Your task to perform on an android device: choose inbox layout in the gmail app Image 0: 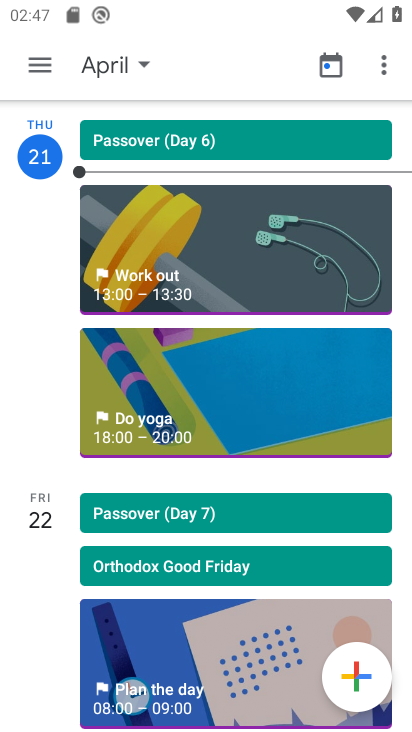
Step 0: press home button
Your task to perform on an android device: choose inbox layout in the gmail app Image 1: 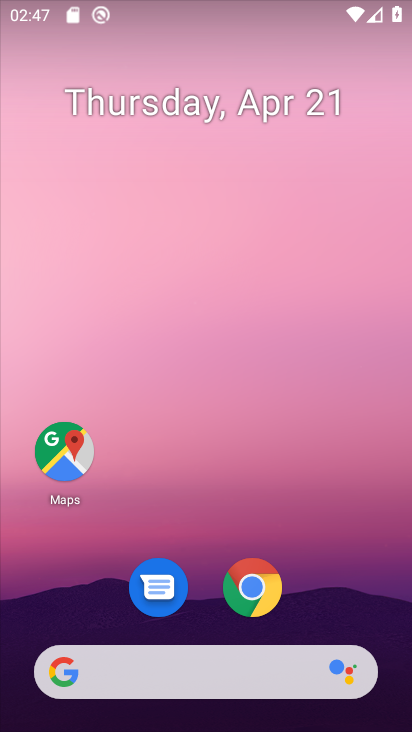
Step 1: drag from (340, 568) to (344, 100)
Your task to perform on an android device: choose inbox layout in the gmail app Image 2: 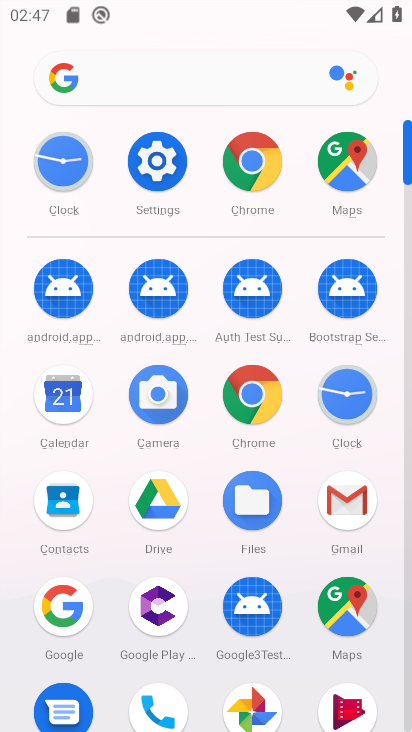
Step 2: click (357, 510)
Your task to perform on an android device: choose inbox layout in the gmail app Image 3: 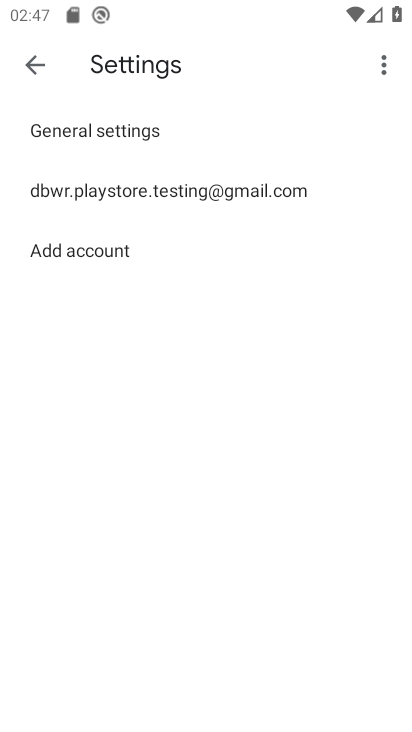
Step 3: click (306, 188)
Your task to perform on an android device: choose inbox layout in the gmail app Image 4: 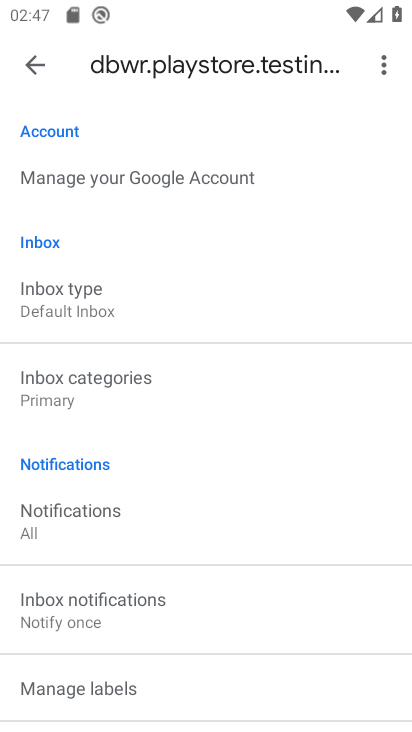
Step 4: drag from (293, 604) to (309, 456)
Your task to perform on an android device: choose inbox layout in the gmail app Image 5: 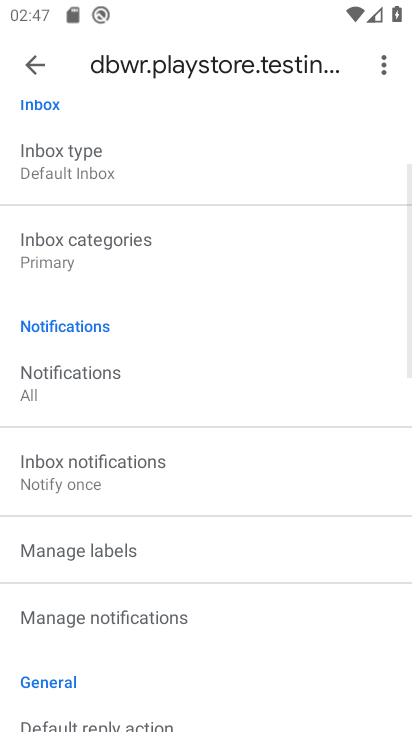
Step 5: drag from (307, 636) to (308, 421)
Your task to perform on an android device: choose inbox layout in the gmail app Image 6: 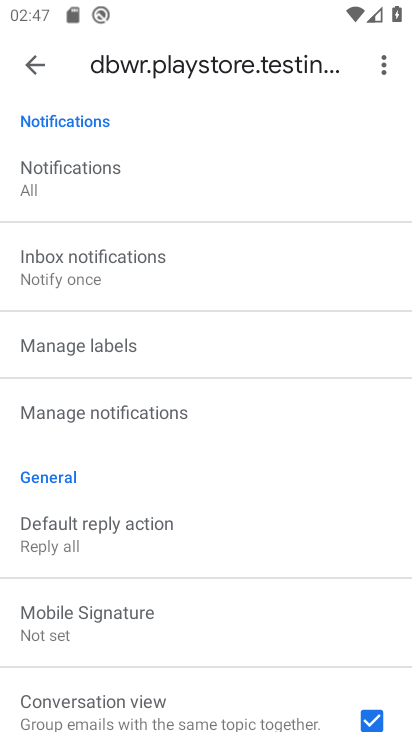
Step 6: drag from (321, 618) to (328, 447)
Your task to perform on an android device: choose inbox layout in the gmail app Image 7: 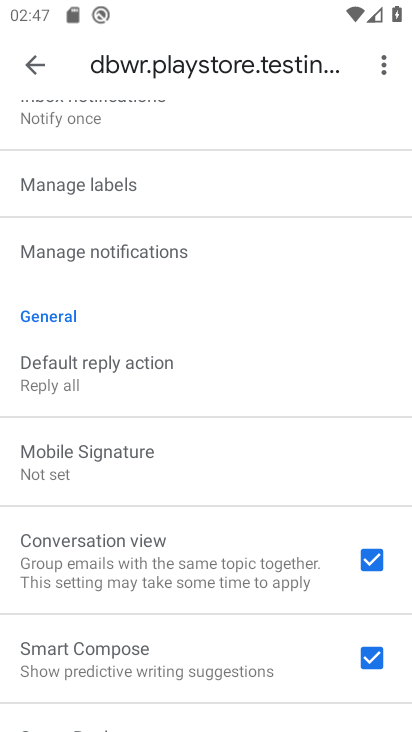
Step 7: drag from (297, 659) to (332, 420)
Your task to perform on an android device: choose inbox layout in the gmail app Image 8: 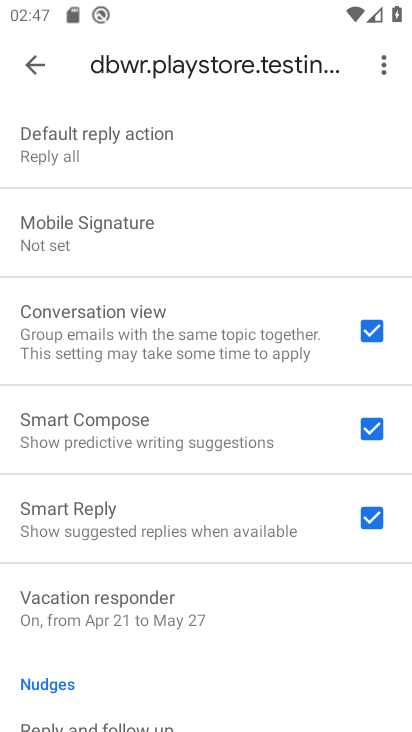
Step 8: drag from (329, 634) to (327, 436)
Your task to perform on an android device: choose inbox layout in the gmail app Image 9: 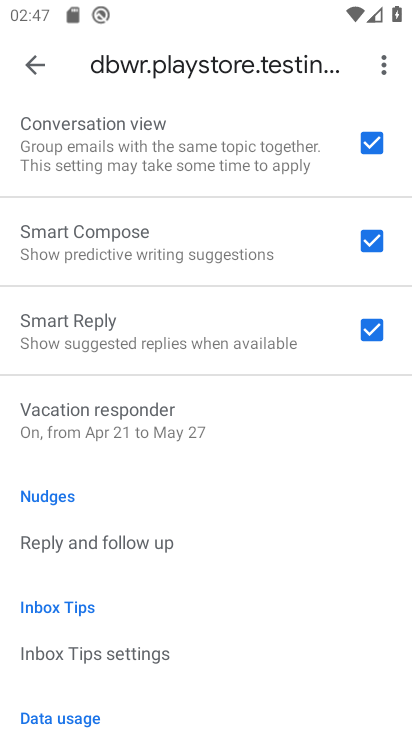
Step 9: drag from (306, 603) to (323, 214)
Your task to perform on an android device: choose inbox layout in the gmail app Image 10: 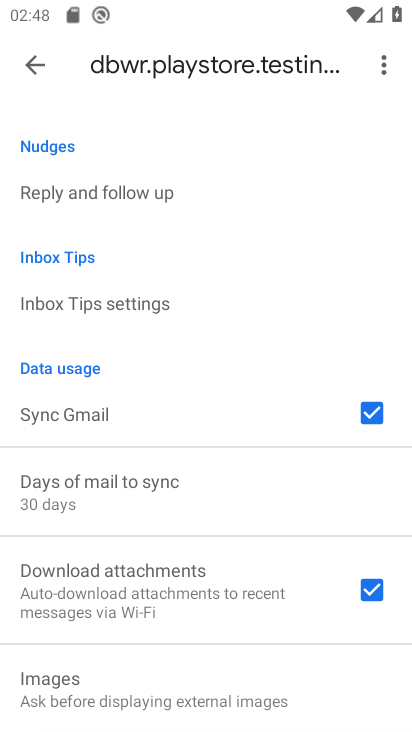
Step 10: drag from (299, 188) to (298, 369)
Your task to perform on an android device: choose inbox layout in the gmail app Image 11: 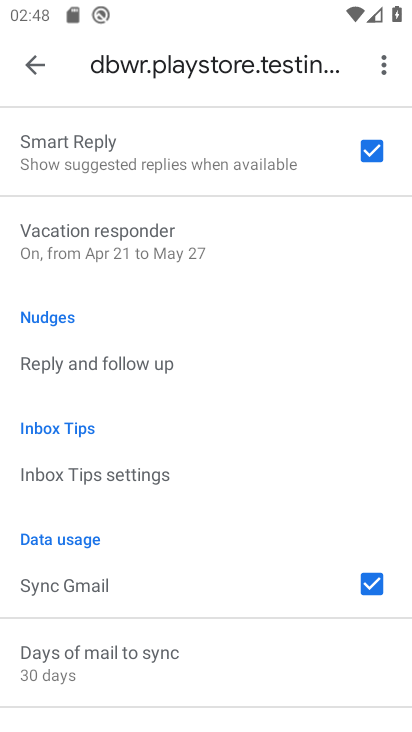
Step 11: drag from (293, 230) to (283, 377)
Your task to perform on an android device: choose inbox layout in the gmail app Image 12: 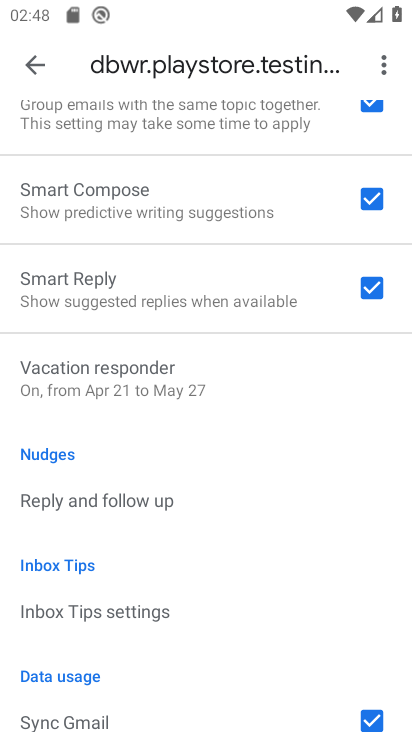
Step 12: drag from (311, 201) to (312, 372)
Your task to perform on an android device: choose inbox layout in the gmail app Image 13: 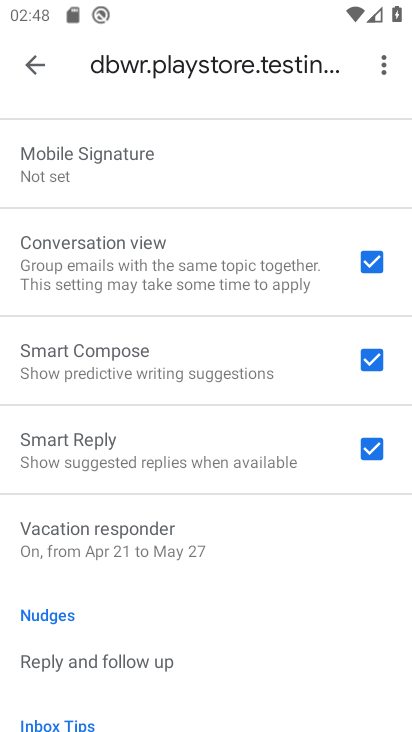
Step 13: drag from (325, 195) to (321, 371)
Your task to perform on an android device: choose inbox layout in the gmail app Image 14: 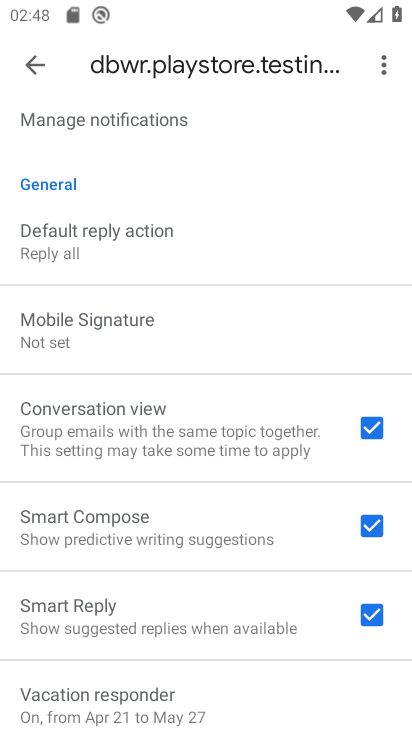
Step 14: drag from (328, 184) to (323, 379)
Your task to perform on an android device: choose inbox layout in the gmail app Image 15: 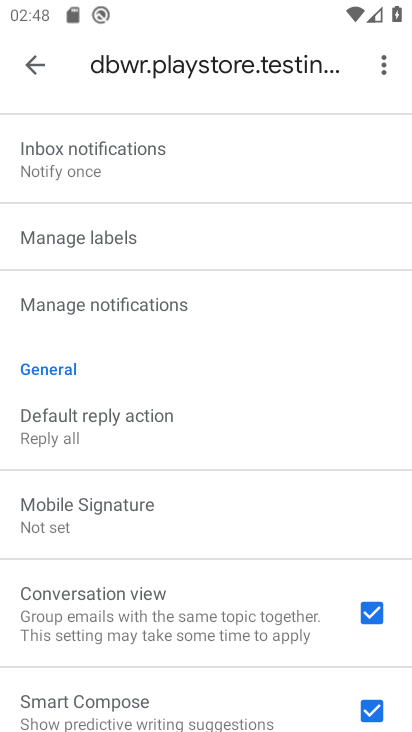
Step 15: drag from (311, 189) to (300, 356)
Your task to perform on an android device: choose inbox layout in the gmail app Image 16: 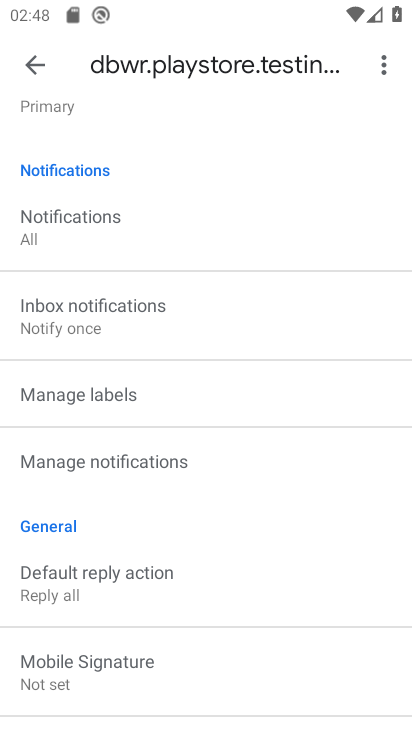
Step 16: drag from (297, 218) to (282, 362)
Your task to perform on an android device: choose inbox layout in the gmail app Image 17: 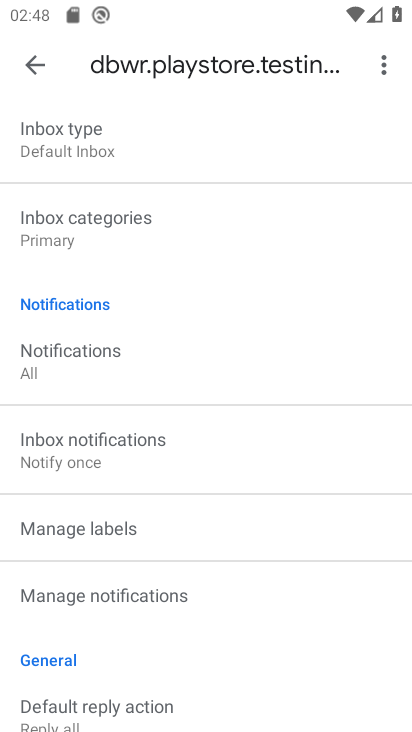
Step 17: drag from (294, 288) to (286, 411)
Your task to perform on an android device: choose inbox layout in the gmail app Image 18: 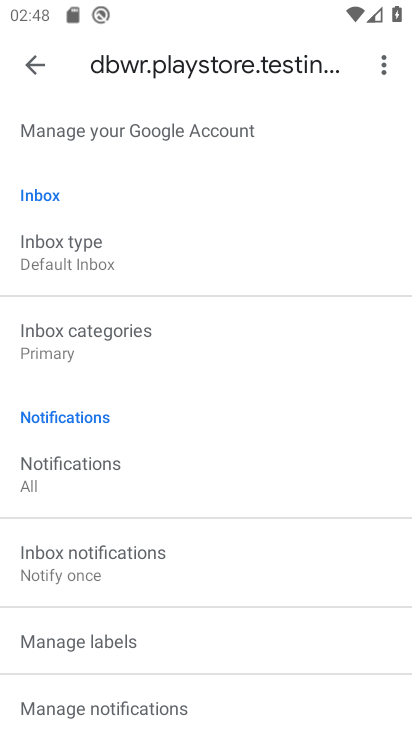
Step 18: click (136, 258)
Your task to perform on an android device: choose inbox layout in the gmail app Image 19: 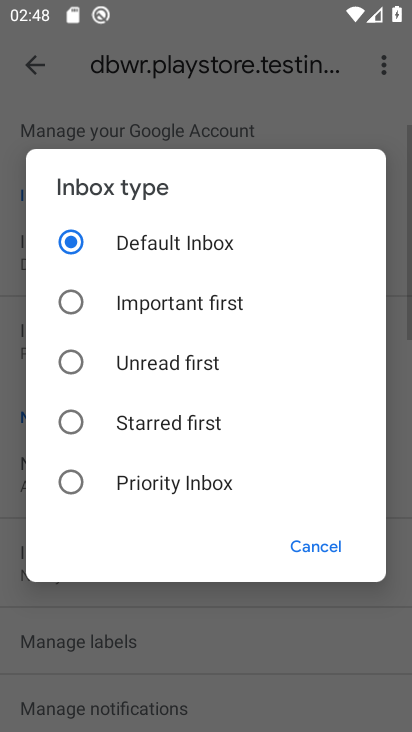
Step 19: click (159, 297)
Your task to perform on an android device: choose inbox layout in the gmail app Image 20: 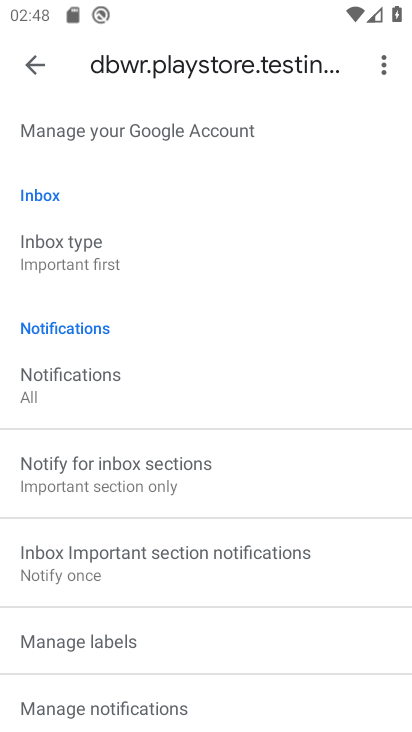
Step 20: task complete